Your task to perform on an android device: turn on location history Image 0: 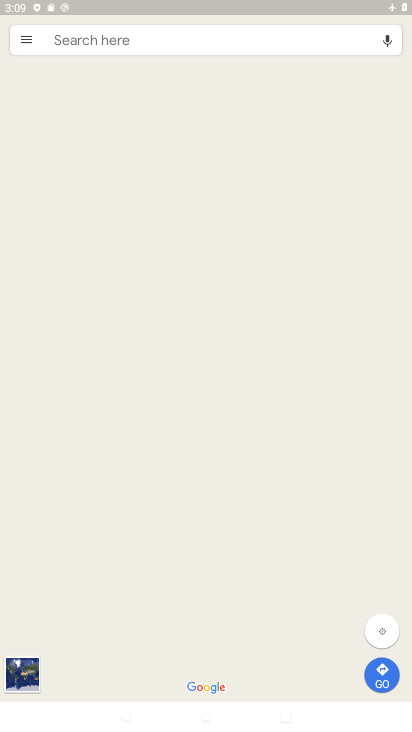
Step 0: press home button
Your task to perform on an android device: turn on location history Image 1: 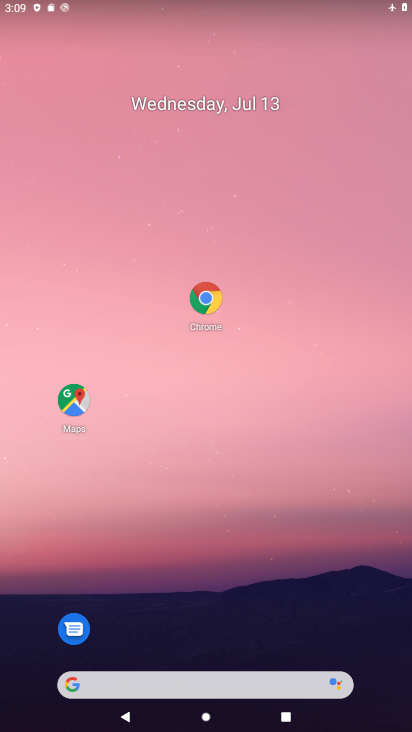
Step 1: drag from (165, 629) to (210, 201)
Your task to perform on an android device: turn on location history Image 2: 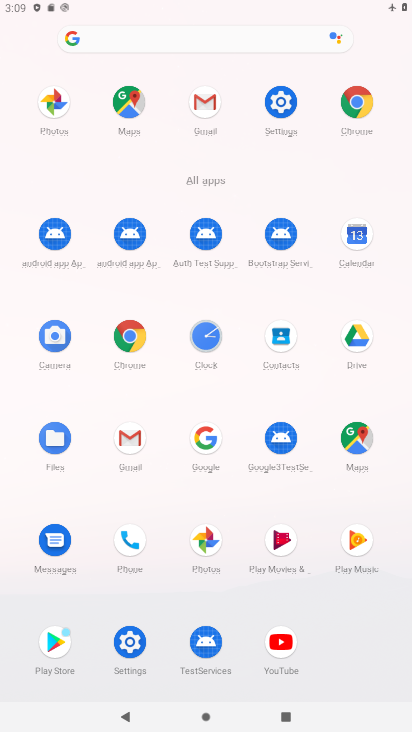
Step 2: click (271, 98)
Your task to perform on an android device: turn on location history Image 3: 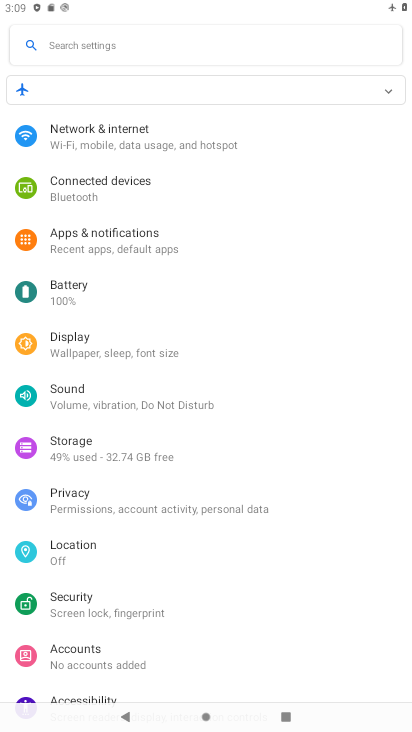
Step 3: click (109, 563)
Your task to perform on an android device: turn on location history Image 4: 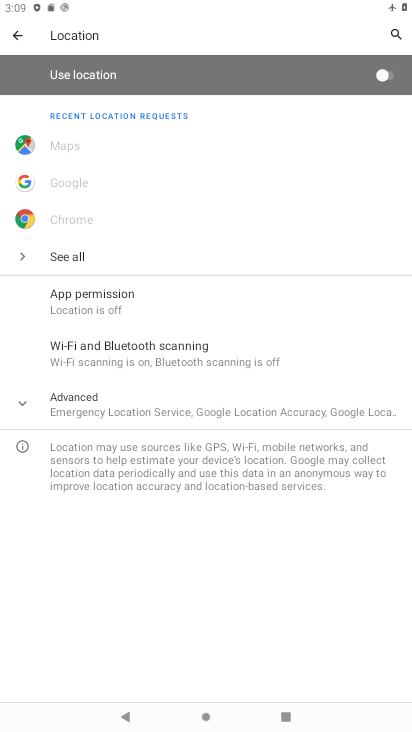
Step 4: click (123, 390)
Your task to perform on an android device: turn on location history Image 5: 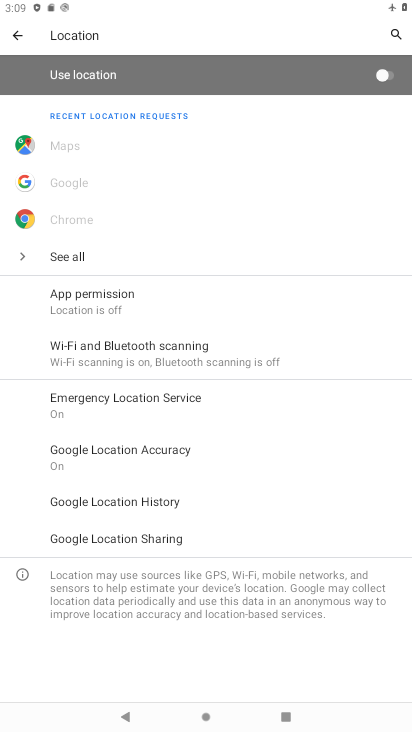
Step 5: click (114, 507)
Your task to perform on an android device: turn on location history Image 6: 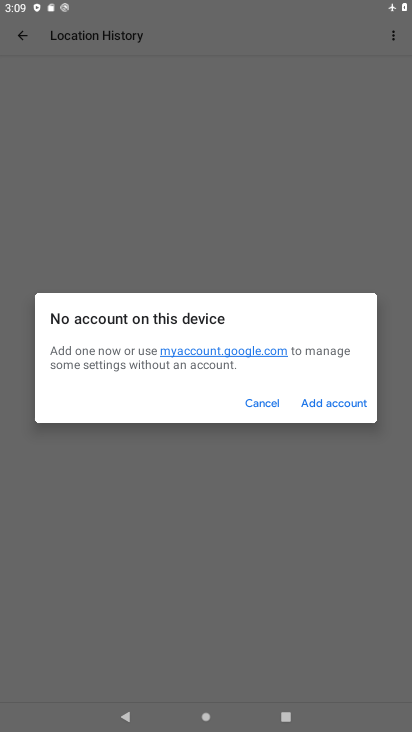
Step 6: click (253, 402)
Your task to perform on an android device: turn on location history Image 7: 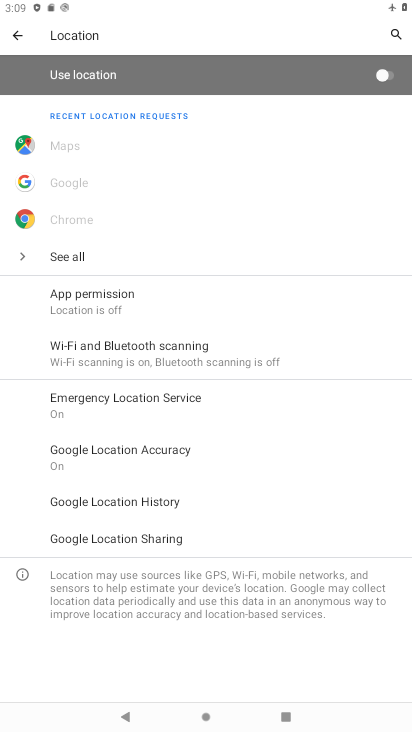
Step 7: click (113, 500)
Your task to perform on an android device: turn on location history Image 8: 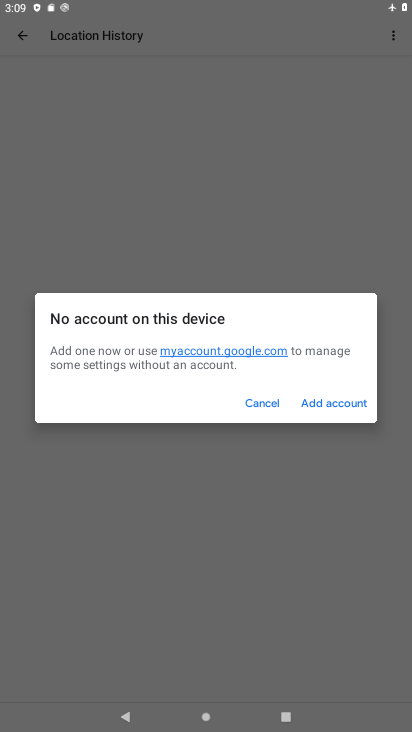
Step 8: click (330, 388)
Your task to perform on an android device: turn on location history Image 9: 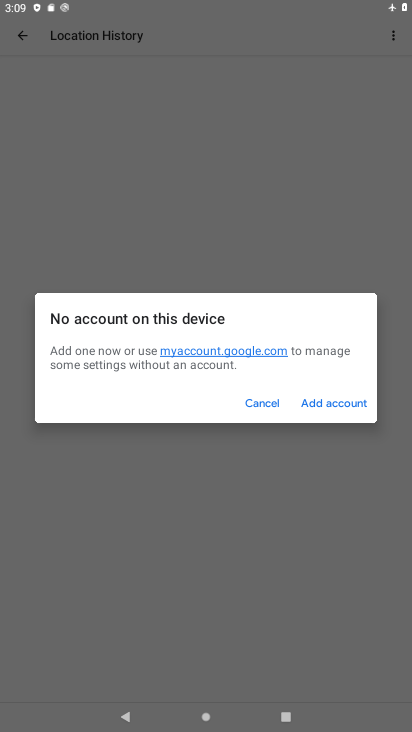
Step 9: click (330, 400)
Your task to perform on an android device: turn on location history Image 10: 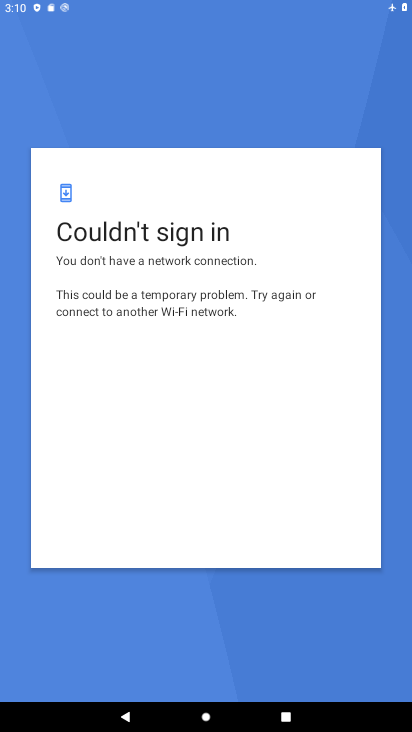
Step 10: click (156, 494)
Your task to perform on an android device: turn on location history Image 11: 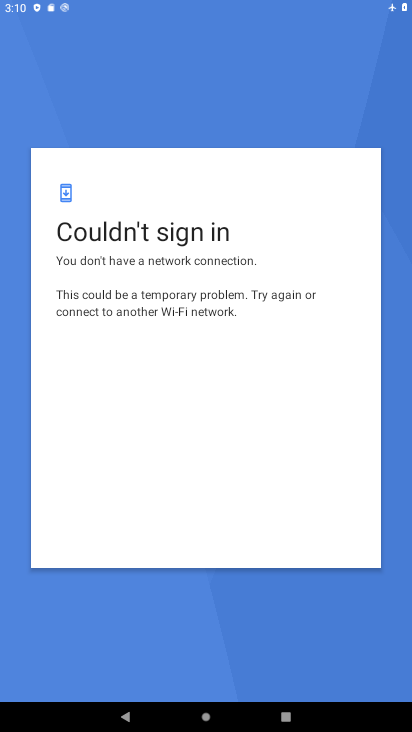
Step 11: task complete